Your task to perform on an android device: What is the news today? Image 0: 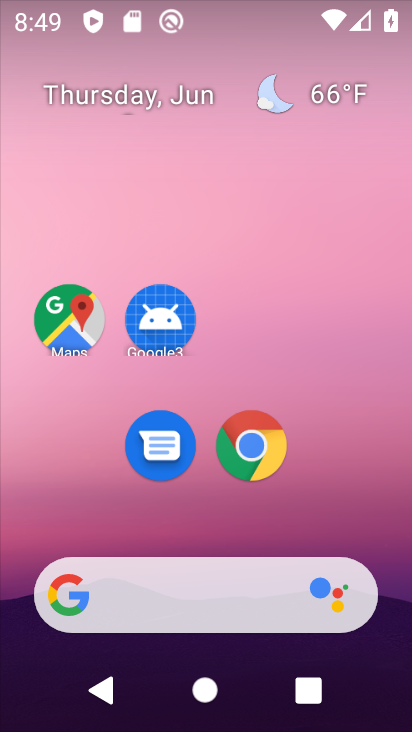
Step 0: click (177, 573)
Your task to perform on an android device: What is the news today? Image 1: 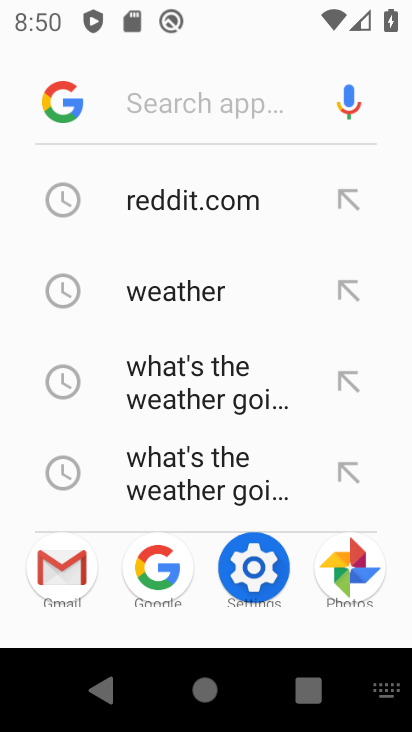
Step 1: type "what is the news today?"
Your task to perform on an android device: What is the news today? Image 2: 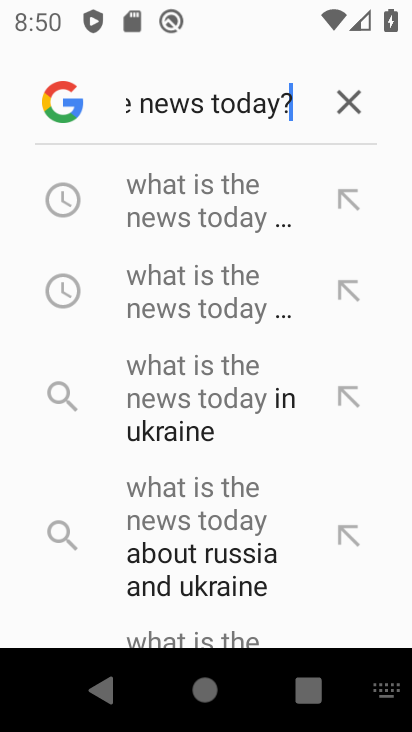
Step 2: click (191, 211)
Your task to perform on an android device: What is the news today? Image 3: 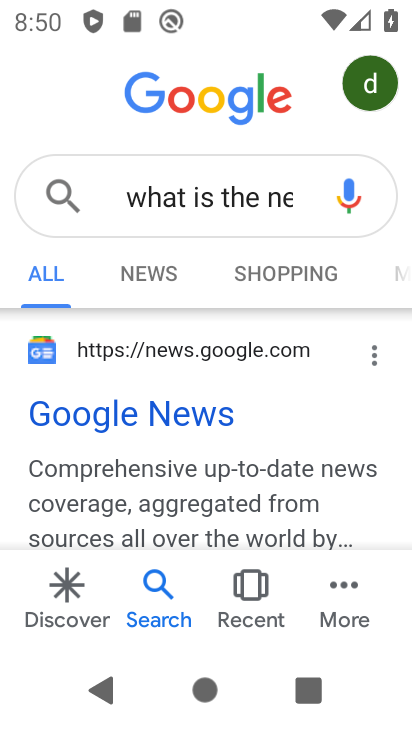
Step 3: click (157, 279)
Your task to perform on an android device: What is the news today? Image 4: 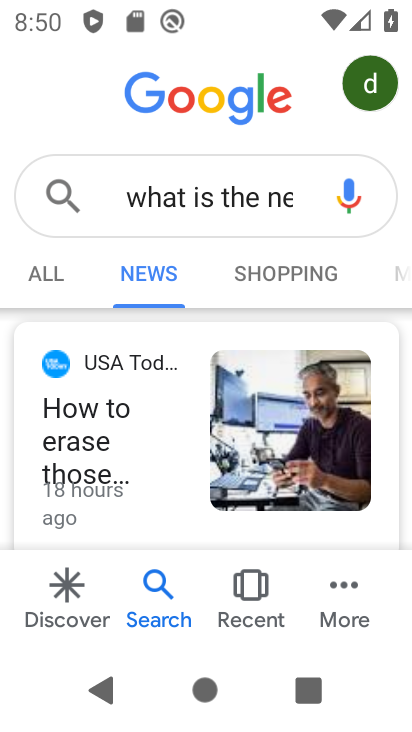
Step 4: task complete